Your task to perform on an android device: find photos in the google photos app Image 0: 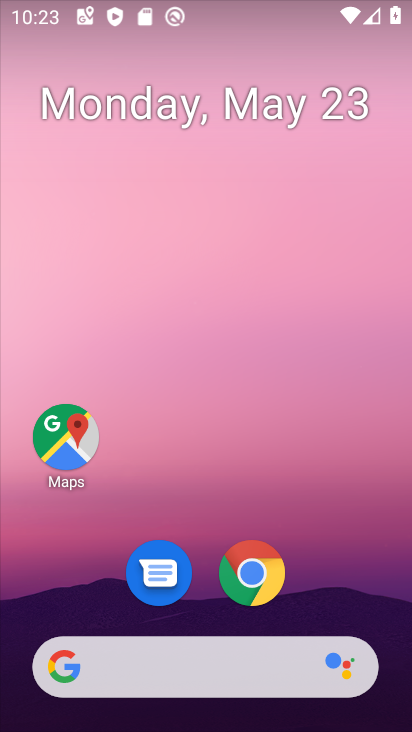
Step 0: drag from (220, 570) to (232, 20)
Your task to perform on an android device: find photos in the google photos app Image 1: 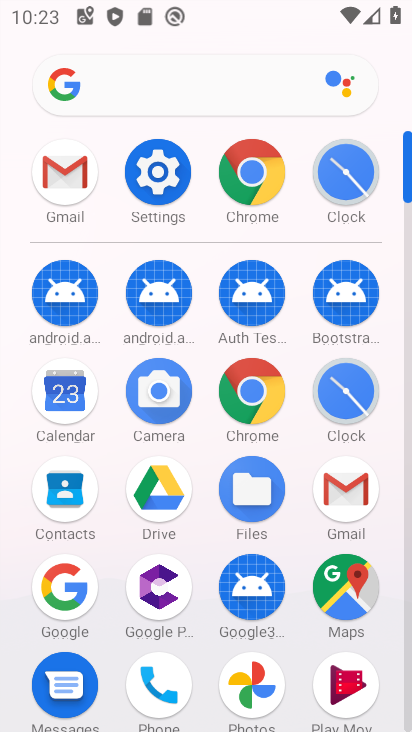
Step 1: click (258, 685)
Your task to perform on an android device: find photos in the google photos app Image 2: 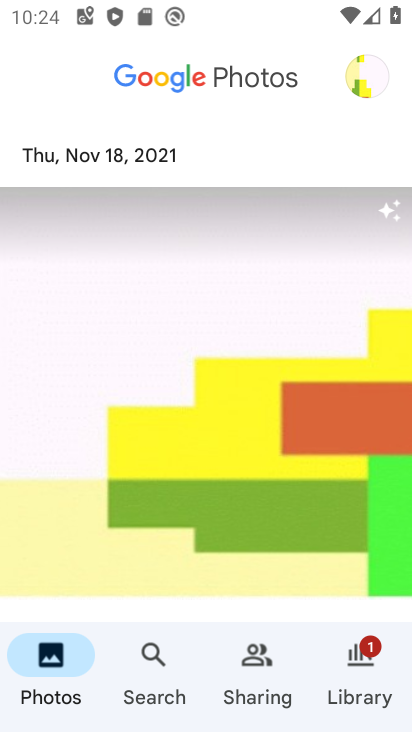
Step 2: task complete